Your task to perform on an android device: Open Youtube and go to "Your channel" Image 0: 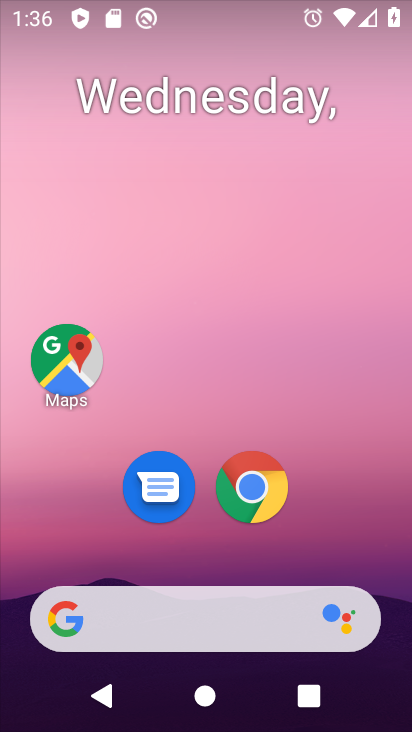
Step 0: drag from (396, 607) to (210, 89)
Your task to perform on an android device: Open Youtube and go to "Your channel" Image 1: 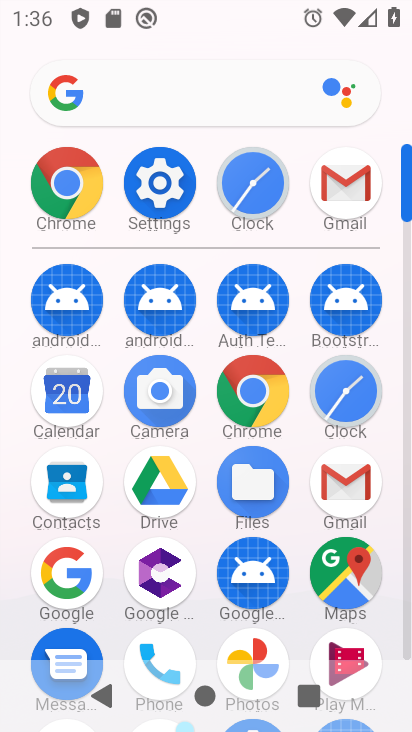
Step 1: click (406, 657)
Your task to perform on an android device: Open Youtube and go to "Your channel" Image 2: 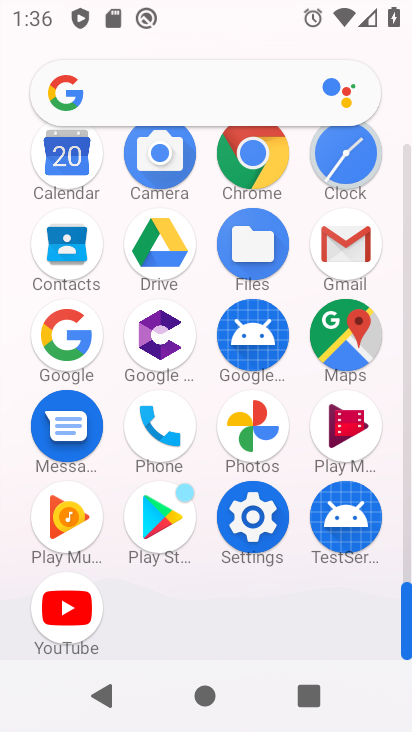
Step 2: click (60, 605)
Your task to perform on an android device: Open Youtube and go to "Your channel" Image 3: 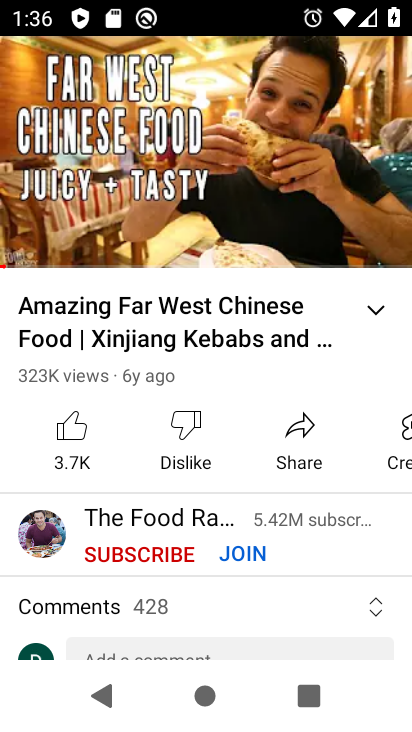
Step 3: press back button
Your task to perform on an android device: Open Youtube and go to "Your channel" Image 4: 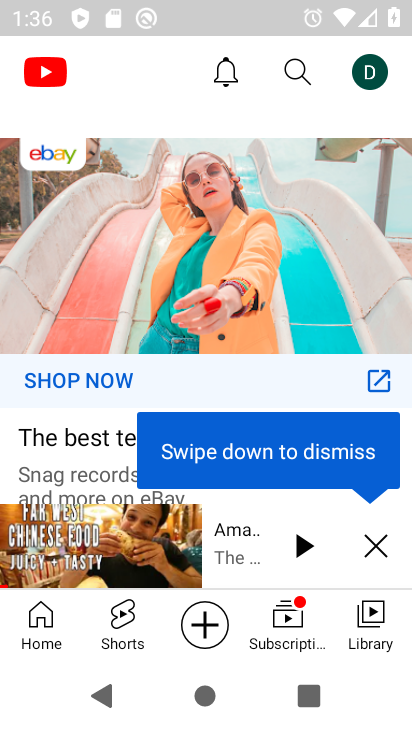
Step 4: click (371, 547)
Your task to perform on an android device: Open Youtube and go to "Your channel" Image 5: 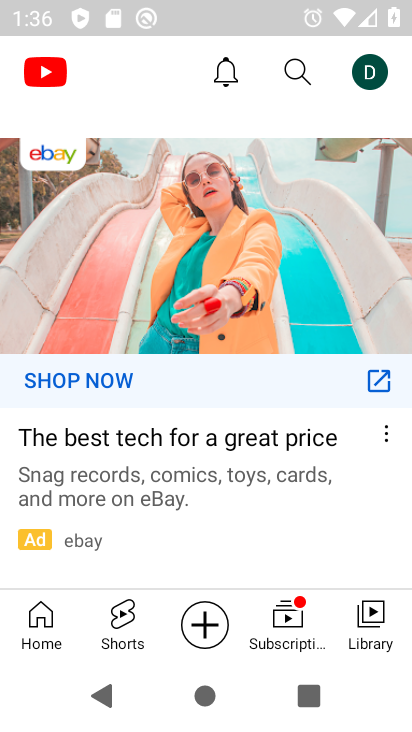
Step 5: click (368, 78)
Your task to perform on an android device: Open Youtube and go to "Your channel" Image 6: 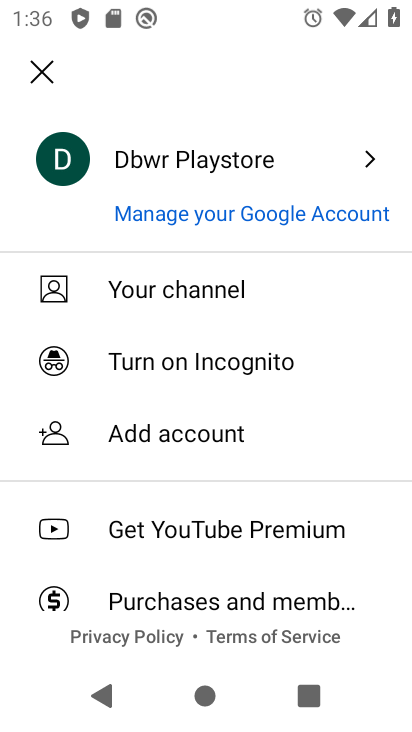
Step 6: click (257, 292)
Your task to perform on an android device: Open Youtube and go to "Your channel" Image 7: 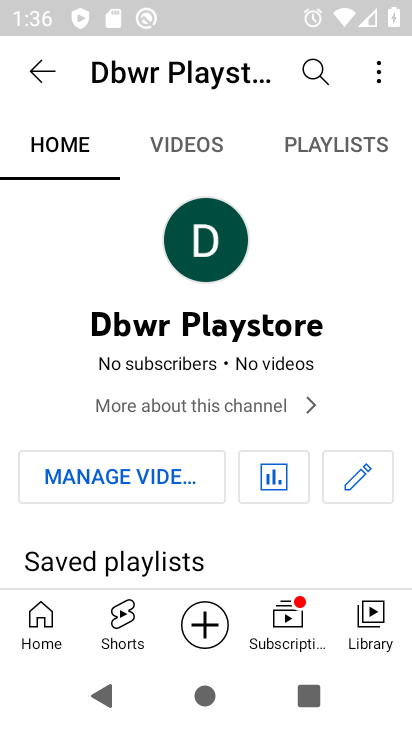
Step 7: task complete